Your task to perform on an android device: Go to Yahoo.com Image 0: 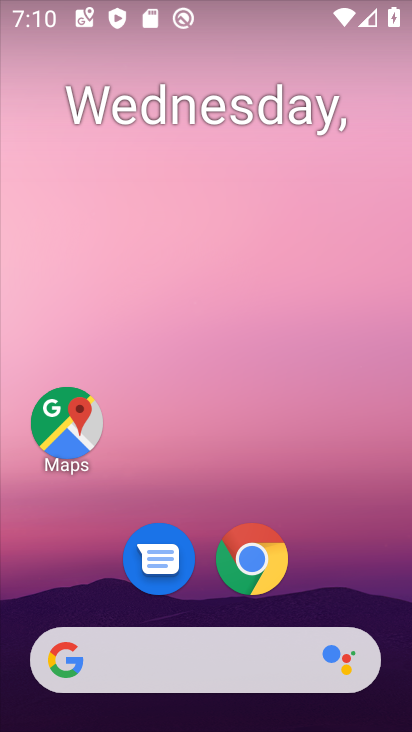
Step 0: click (254, 554)
Your task to perform on an android device: Go to Yahoo.com Image 1: 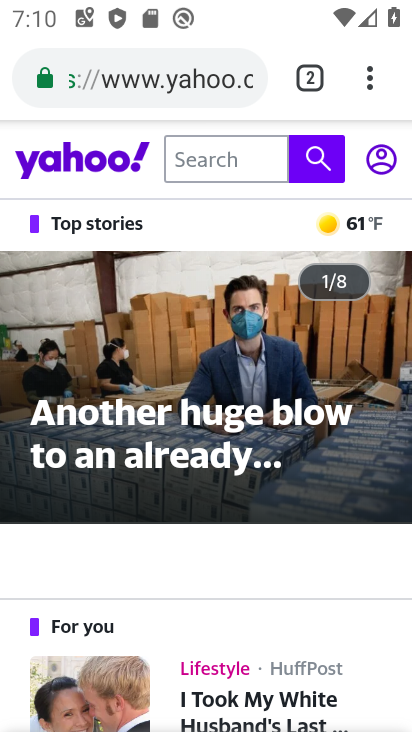
Step 1: task complete